Your task to perform on an android device: What's the weather? Image 0: 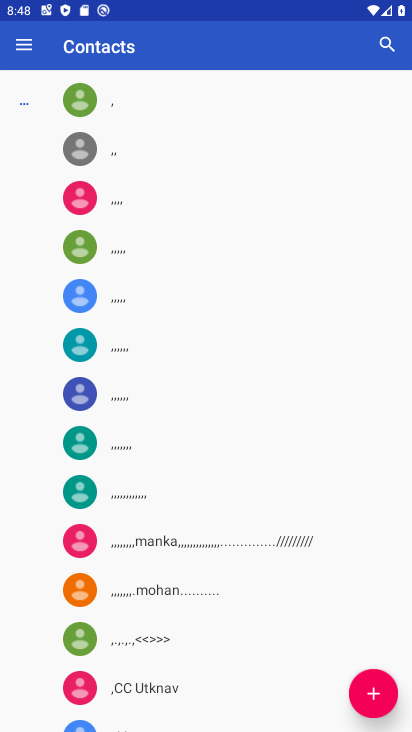
Step 0: press home button
Your task to perform on an android device: What's the weather? Image 1: 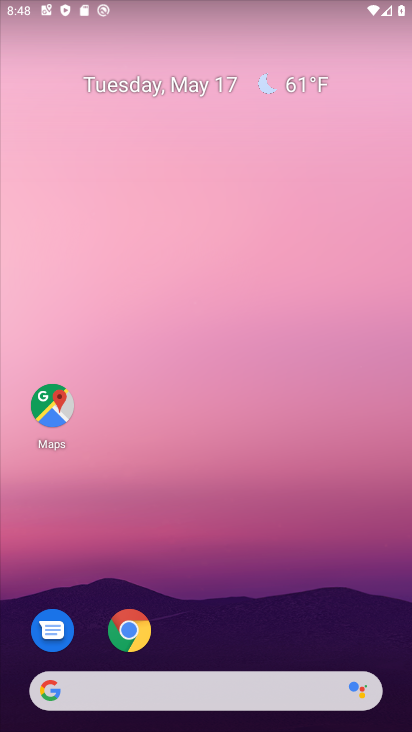
Step 1: drag from (1, 306) to (351, 270)
Your task to perform on an android device: What's the weather? Image 2: 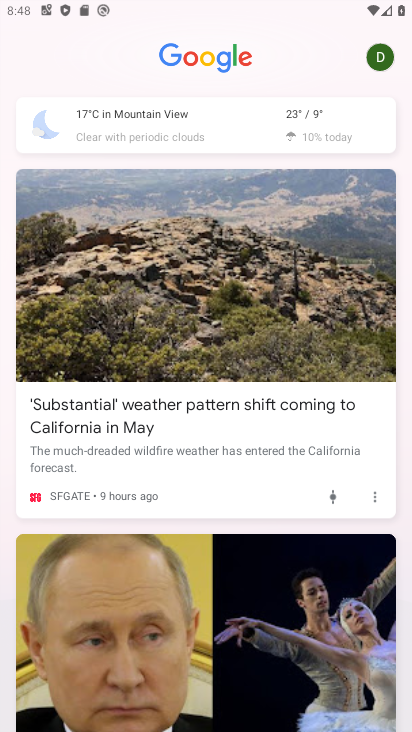
Step 2: click (284, 141)
Your task to perform on an android device: What's the weather? Image 3: 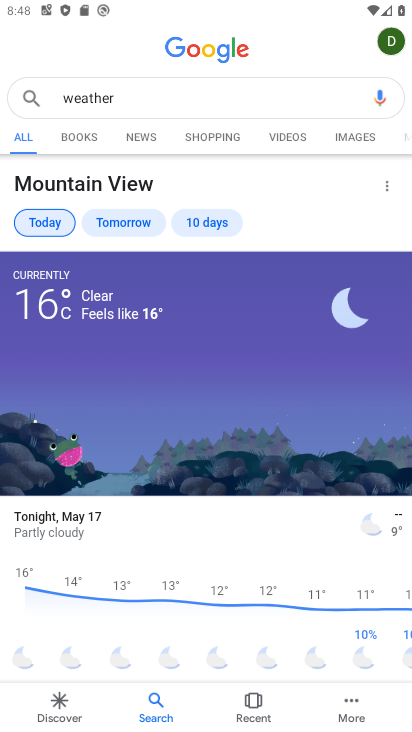
Step 3: task complete